Your task to perform on an android device: What's the weather? Image 0: 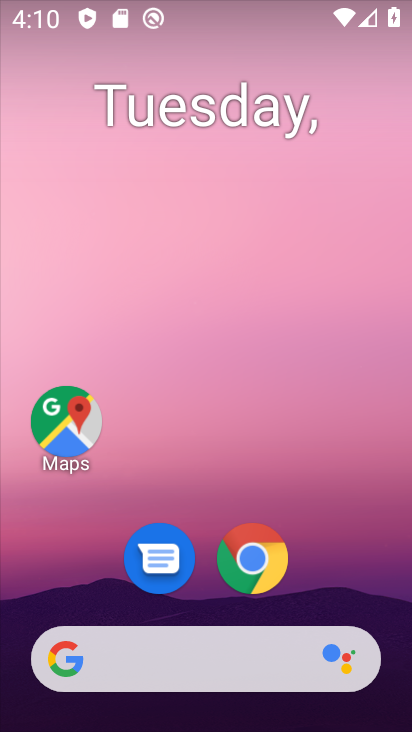
Step 0: drag from (371, 583) to (342, 216)
Your task to perform on an android device: What's the weather? Image 1: 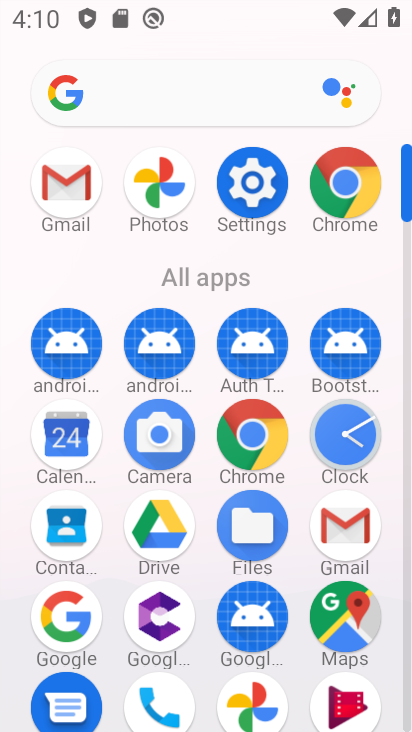
Step 1: click (348, 197)
Your task to perform on an android device: What's the weather? Image 2: 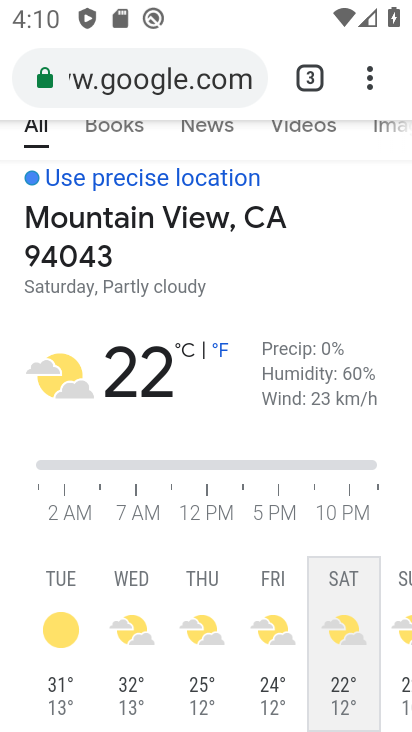
Step 2: click (232, 90)
Your task to perform on an android device: What's the weather? Image 3: 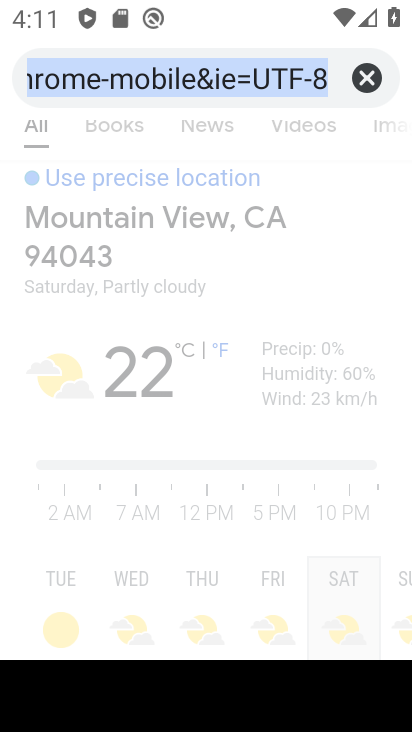
Step 3: type "What's the weather?"
Your task to perform on an android device: What's the weather? Image 4: 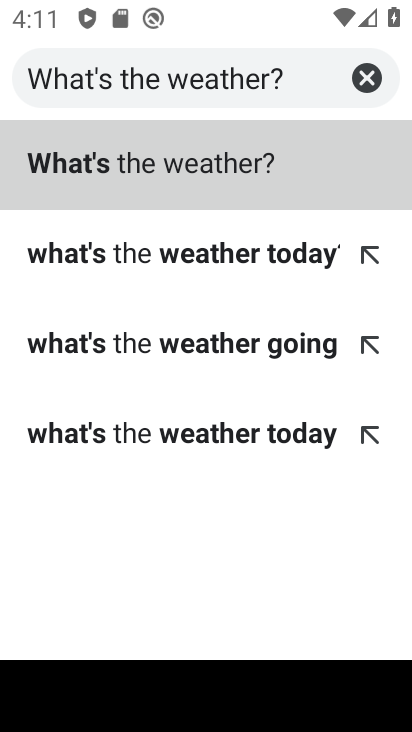
Step 4: click (150, 182)
Your task to perform on an android device: What's the weather? Image 5: 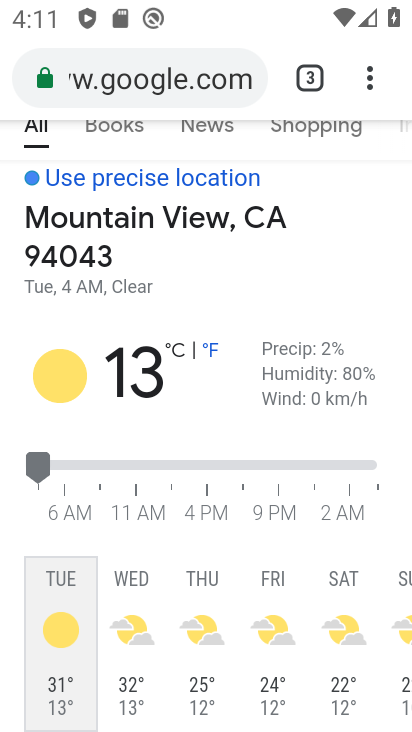
Step 5: task complete